Your task to perform on an android device: find photos in the google photos app Image 0: 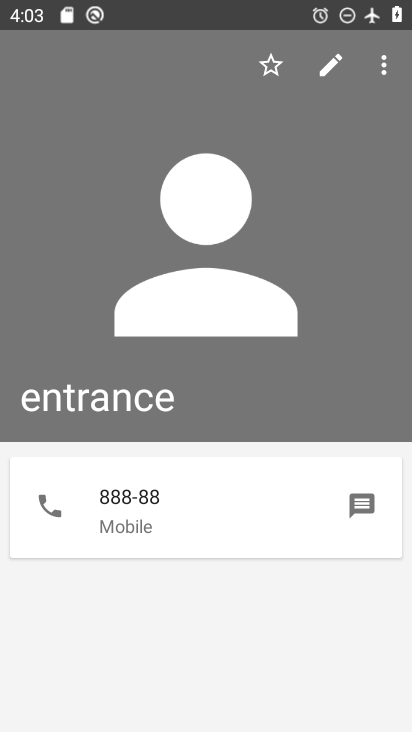
Step 0: press home button
Your task to perform on an android device: find photos in the google photos app Image 1: 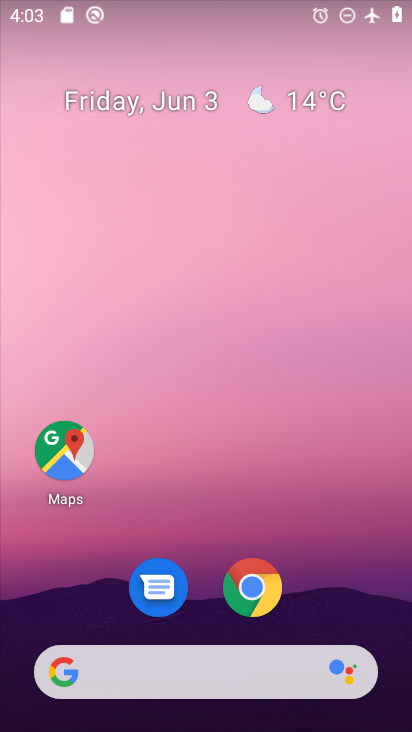
Step 1: drag from (214, 722) to (202, 170)
Your task to perform on an android device: find photos in the google photos app Image 2: 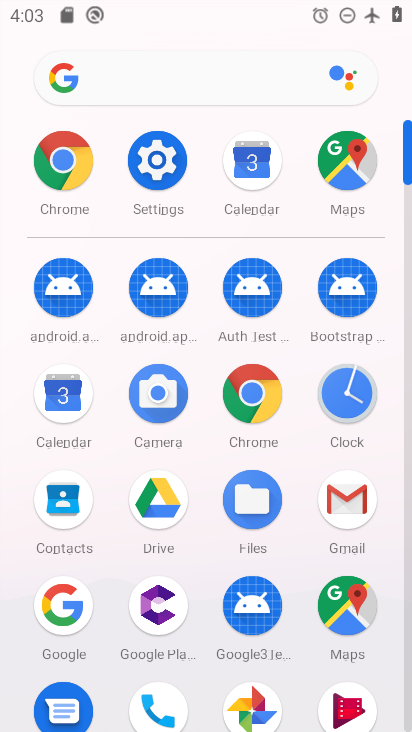
Step 2: click (262, 708)
Your task to perform on an android device: find photos in the google photos app Image 3: 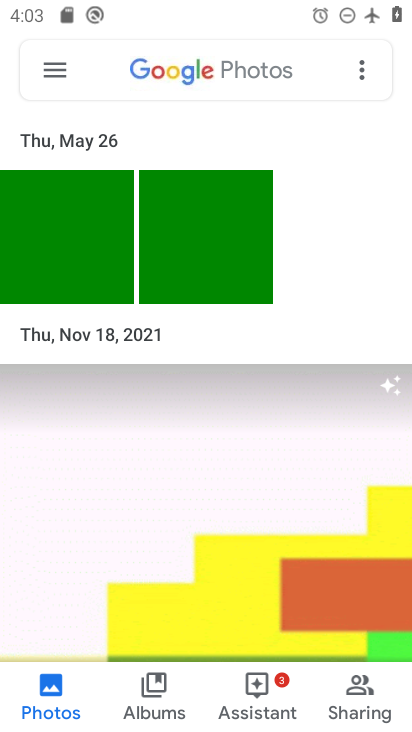
Step 3: click (57, 228)
Your task to perform on an android device: find photos in the google photos app Image 4: 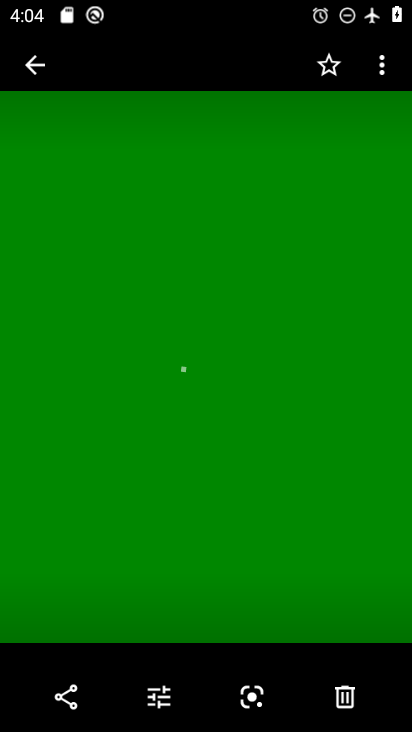
Step 4: task complete